Your task to perform on an android device: turn off picture-in-picture Image 0: 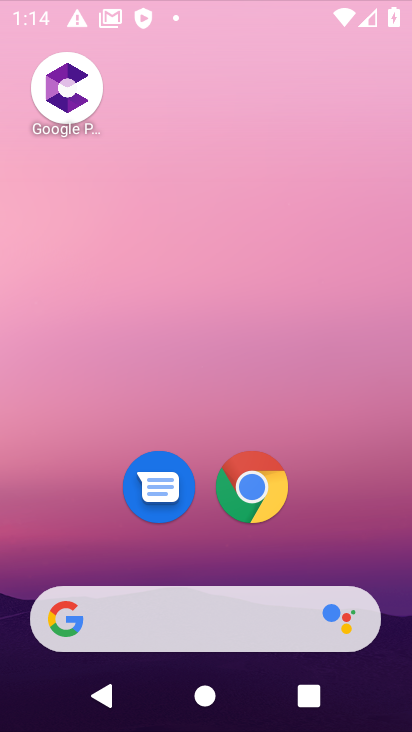
Step 0: press home button
Your task to perform on an android device: turn off picture-in-picture Image 1: 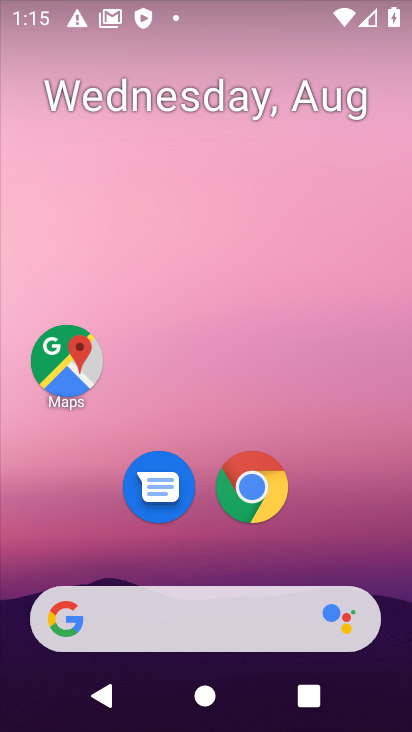
Step 1: drag from (251, 494) to (257, 440)
Your task to perform on an android device: turn off picture-in-picture Image 2: 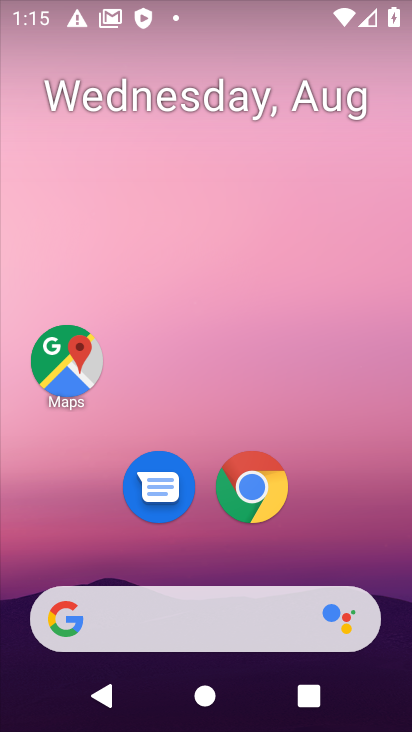
Step 2: click (263, 324)
Your task to perform on an android device: turn off picture-in-picture Image 3: 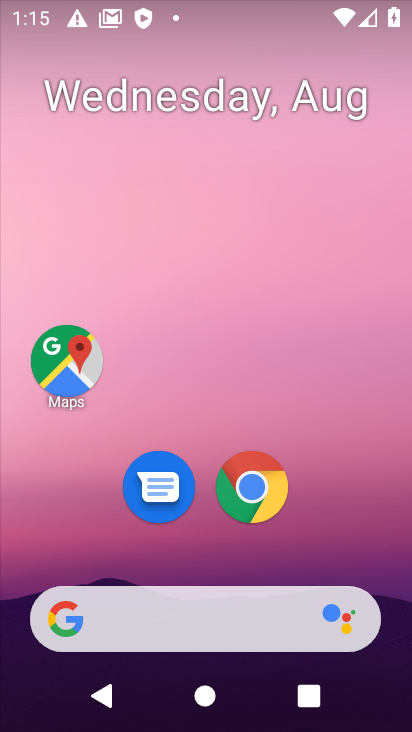
Step 3: click (251, 501)
Your task to perform on an android device: turn off picture-in-picture Image 4: 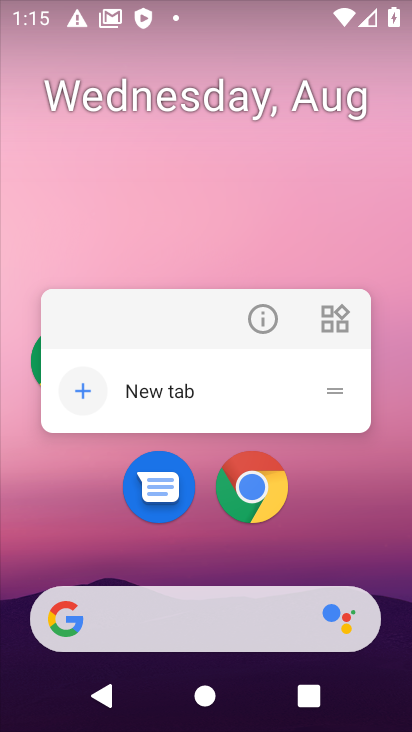
Step 4: click (261, 317)
Your task to perform on an android device: turn off picture-in-picture Image 5: 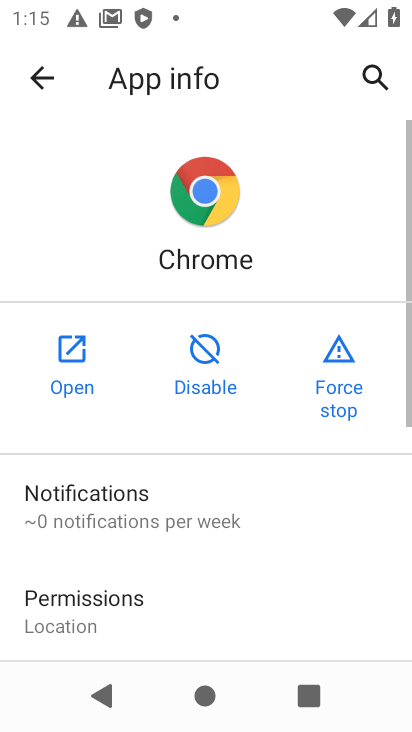
Step 5: drag from (311, 597) to (225, 16)
Your task to perform on an android device: turn off picture-in-picture Image 6: 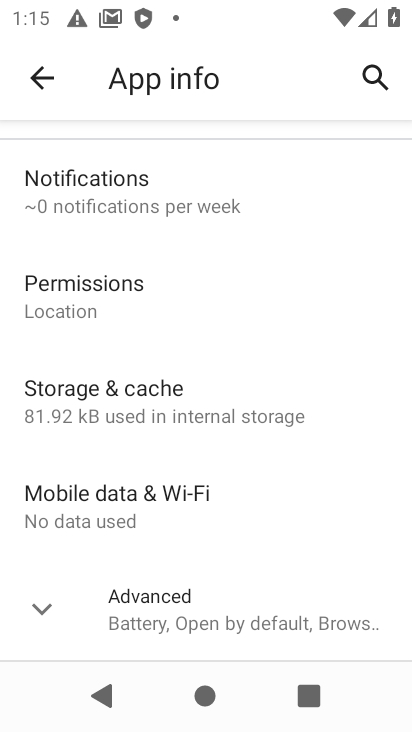
Step 6: click (159, 608)
Your task to perform on an android device: turn off picture-in-picture Image 7: 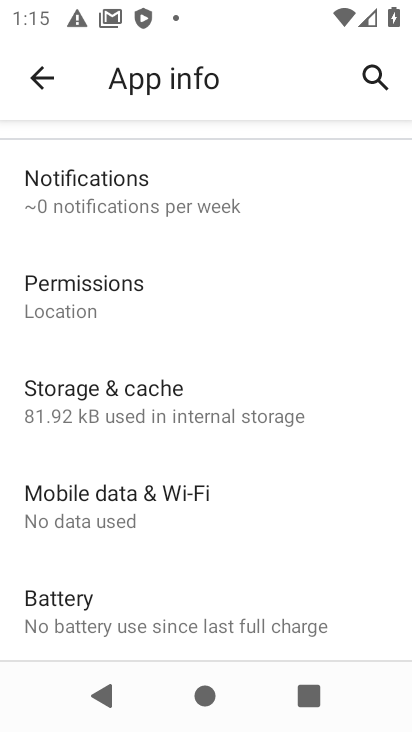
Step 7: drag from (361, 557) to (311, 128)
Your task to perform on an android device: turn off picture-in-picture Image 8: 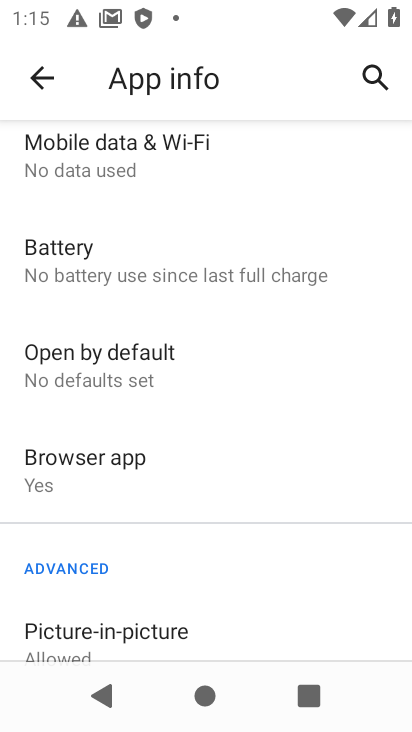
Step 8: drag from (285, 545) to (298, 447)
Your task to perform on an android device: turn off picture-in-picture Image 9: 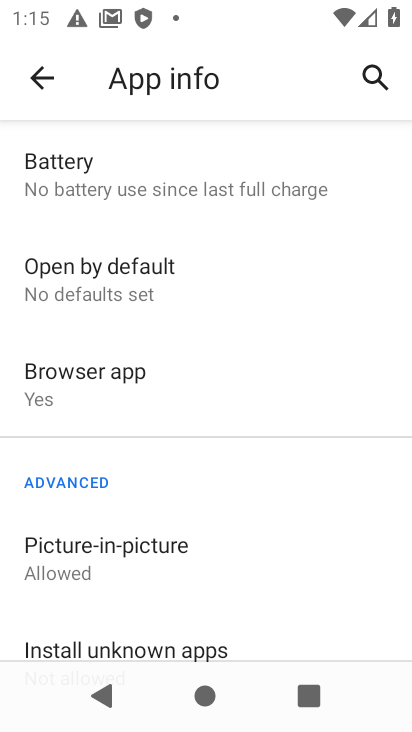
Step 9: click (94, 560)
Your task to perform on an android device: turn off picture-in-picture Image 10: 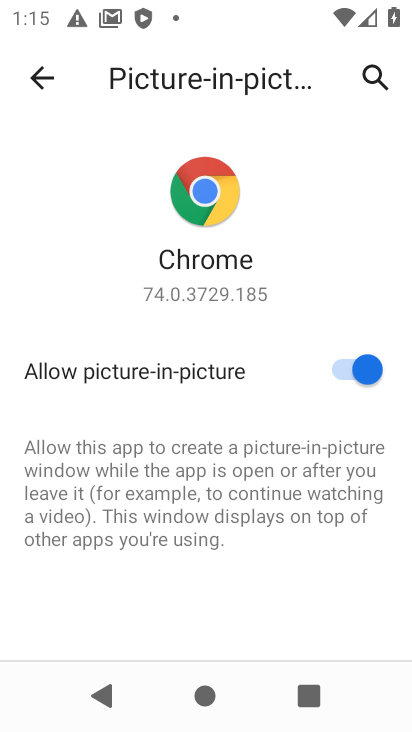
Step 10: click (364, 366)
Your task to perform on an android device: turn off picture-in-picture Image 11: 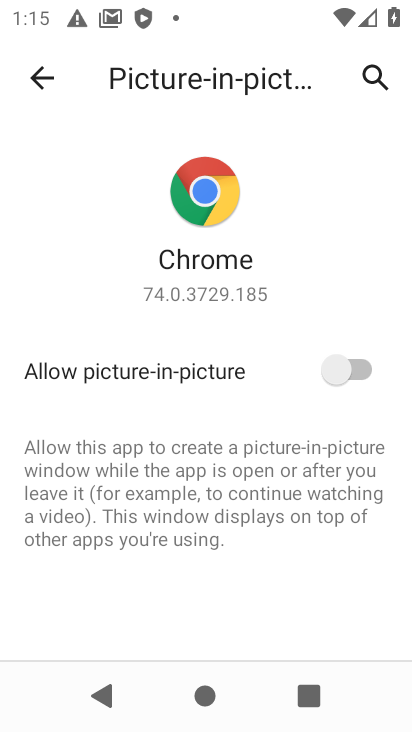
Step 11: task complete